Your task to perform on an android device: Open ESPN.com Image 0: 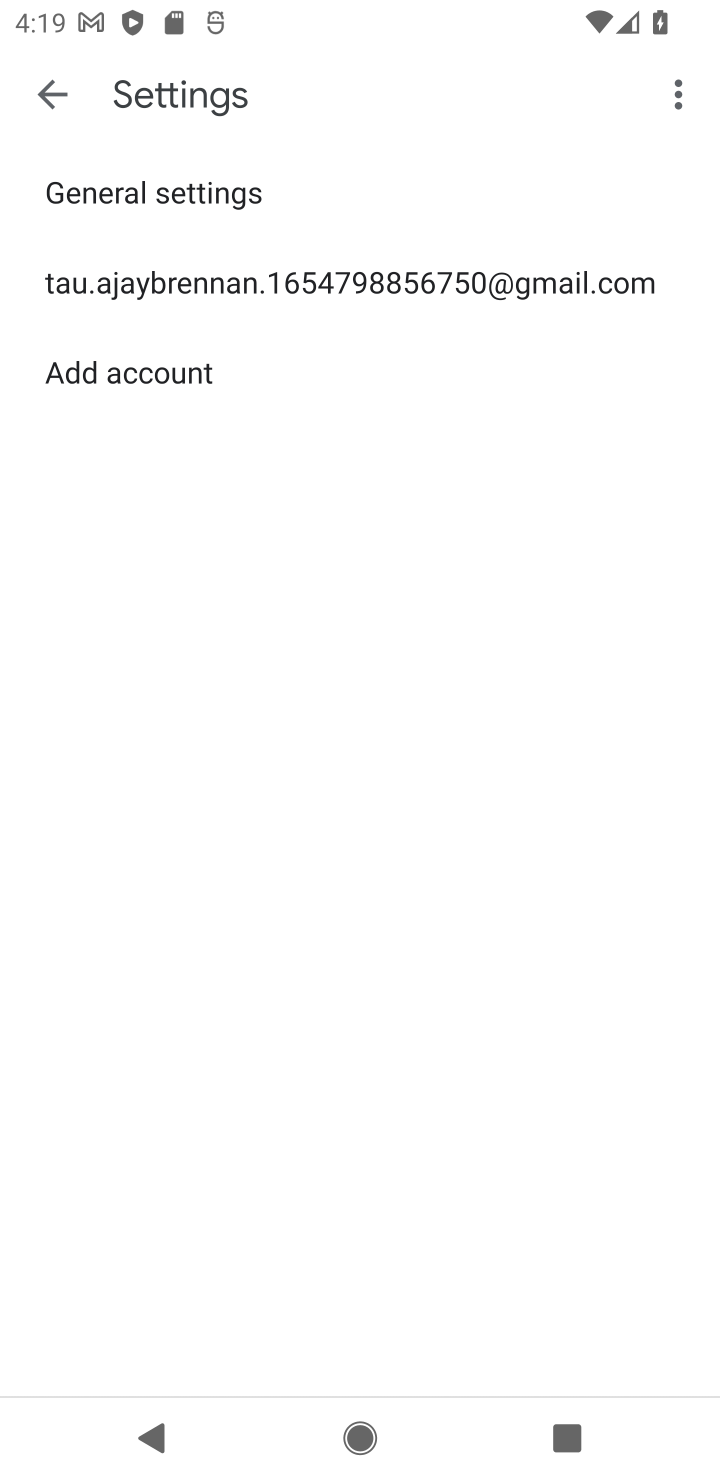
Step 0: press home button
Your task to perform on an android device: Open ESPN.com Image 1: 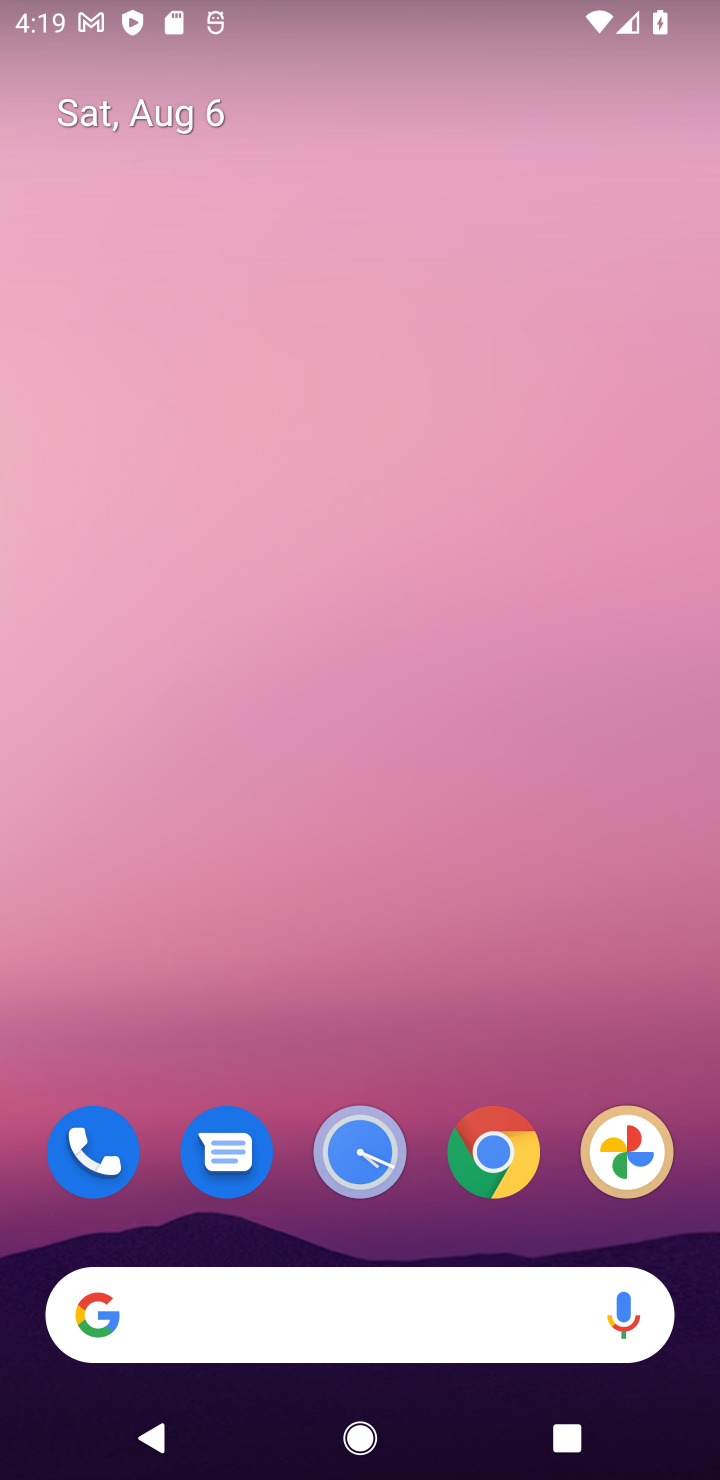
Step 1: drag from (467, 828) to (579, 1)
Your task to perform on an android device: Open ESPN.com Image 2: 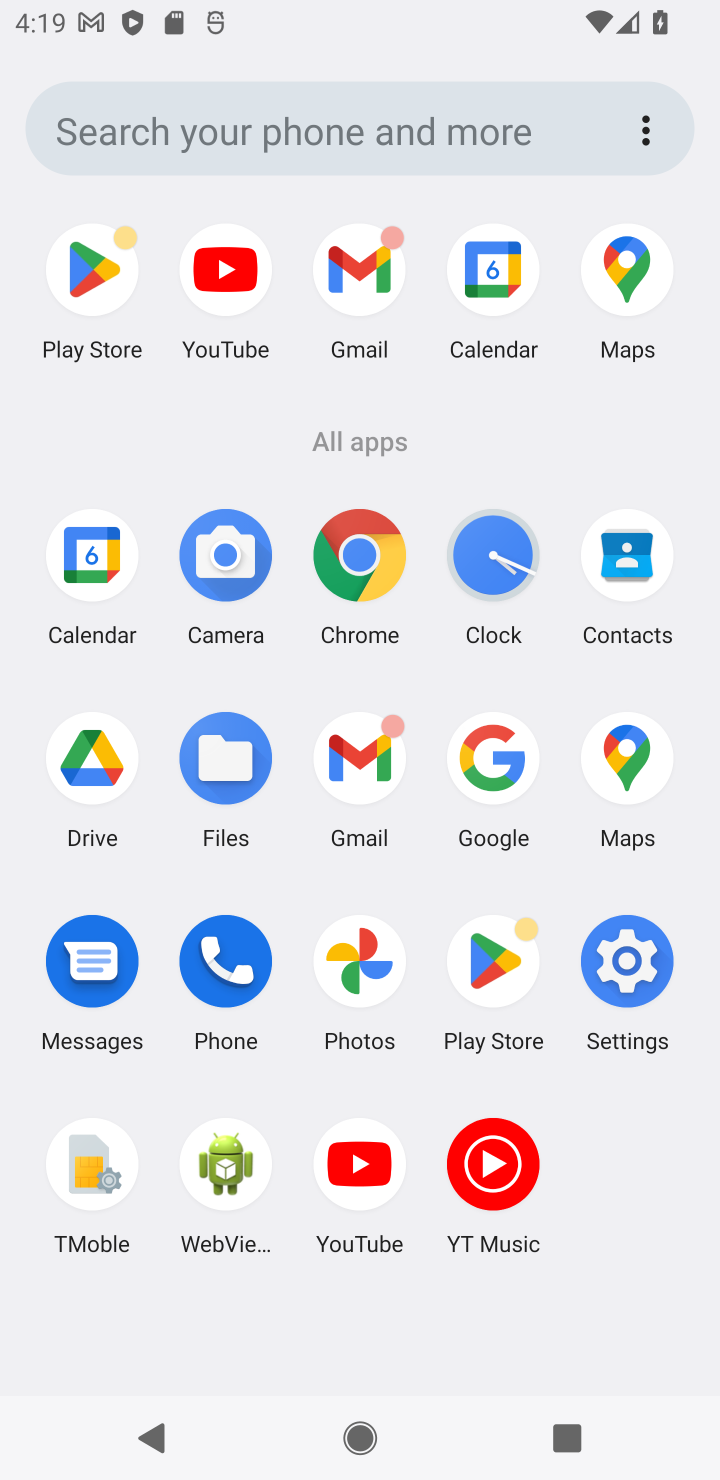
Step 2: click (359, 560)
Your task to perform on an android device: Open ESPN.com Image 3: 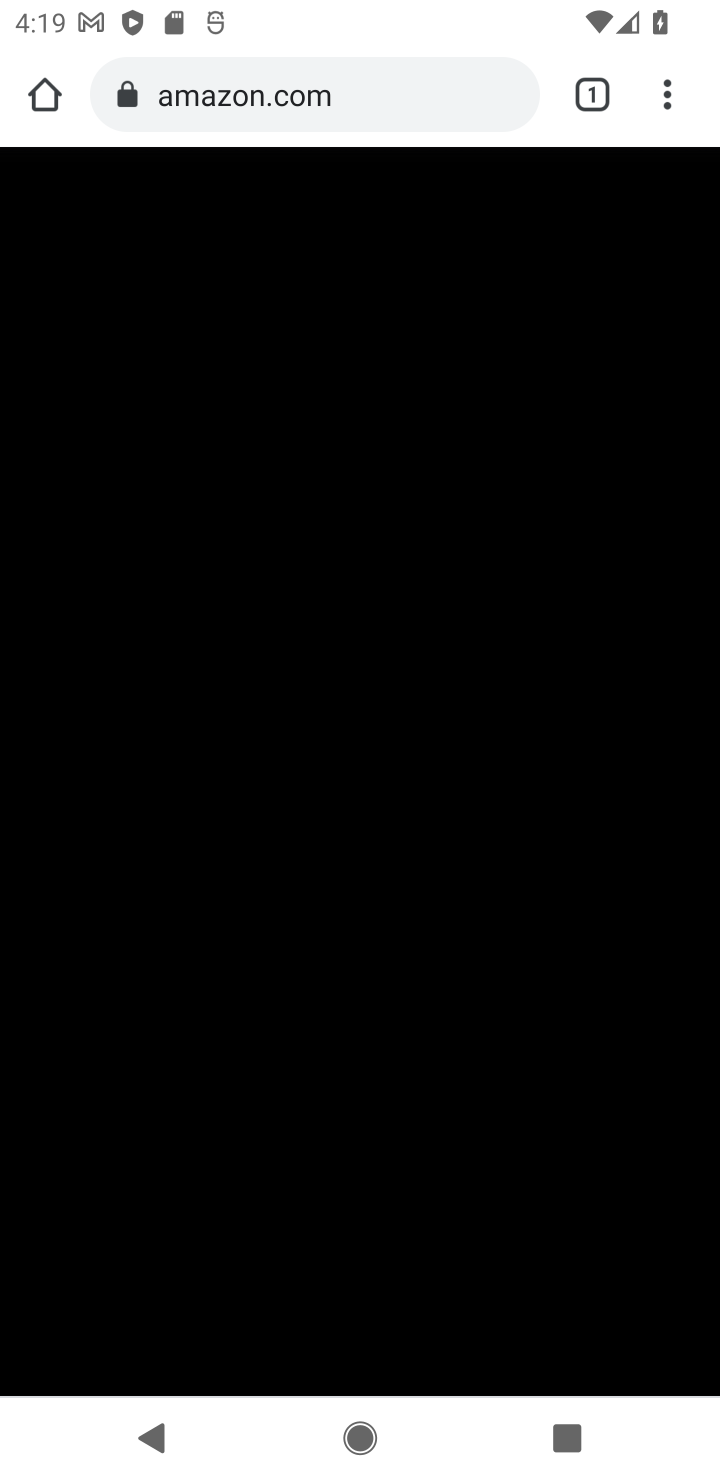
Step 3: click (417, 91)
Your task to perform on an android device: Open ESPN.com Image 4: 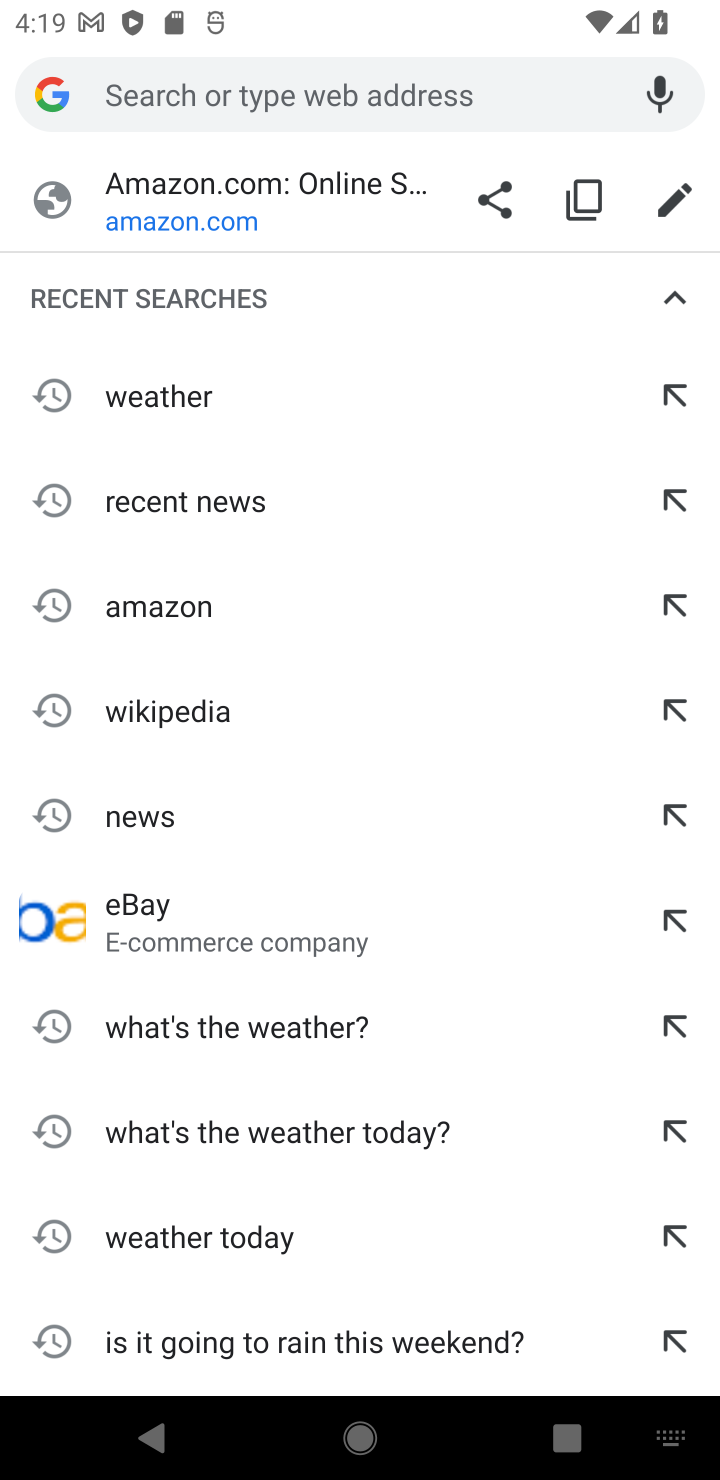
Step 4: type "espn.com"
Your task to perform on an android device: Open ESPN.com Image 5: 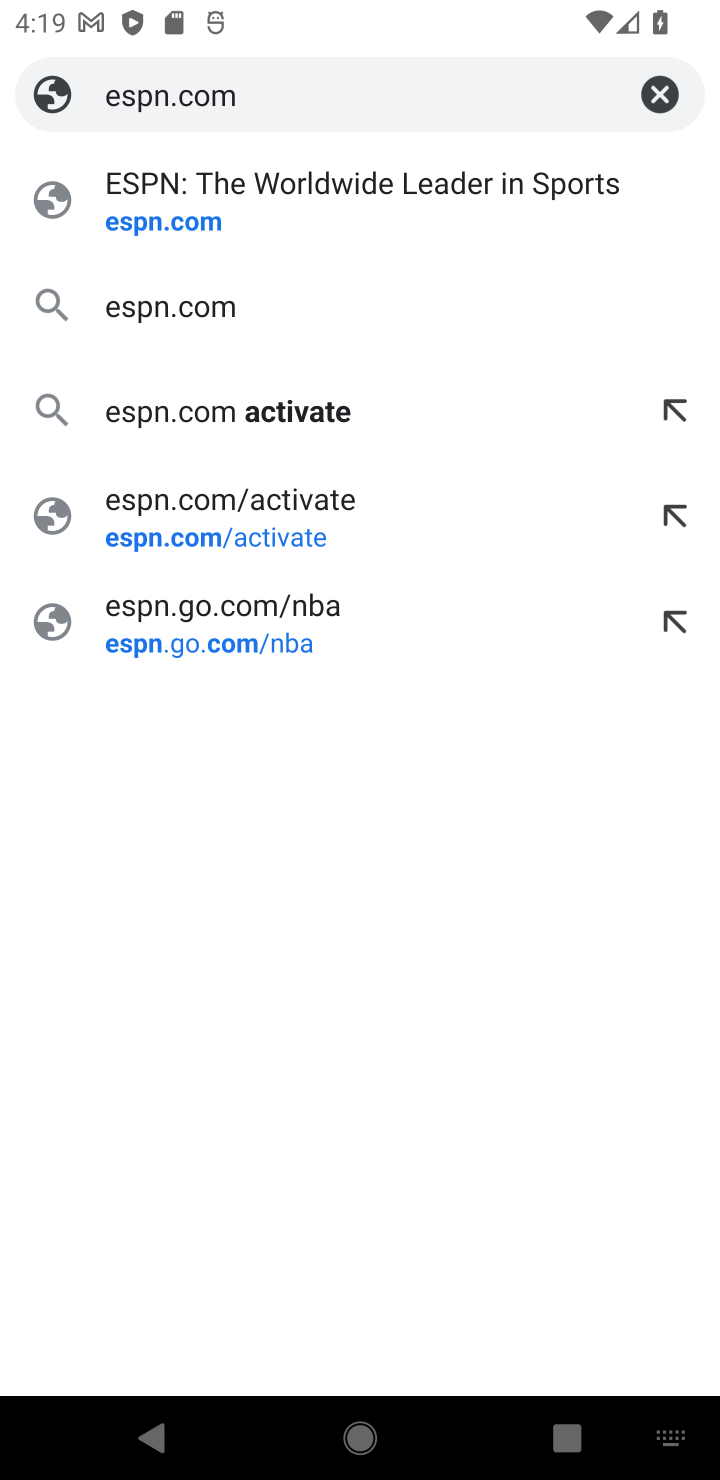
Step 5: click (158, 225)
Your task to perform on an android device: Open ESPN.com Image 6: 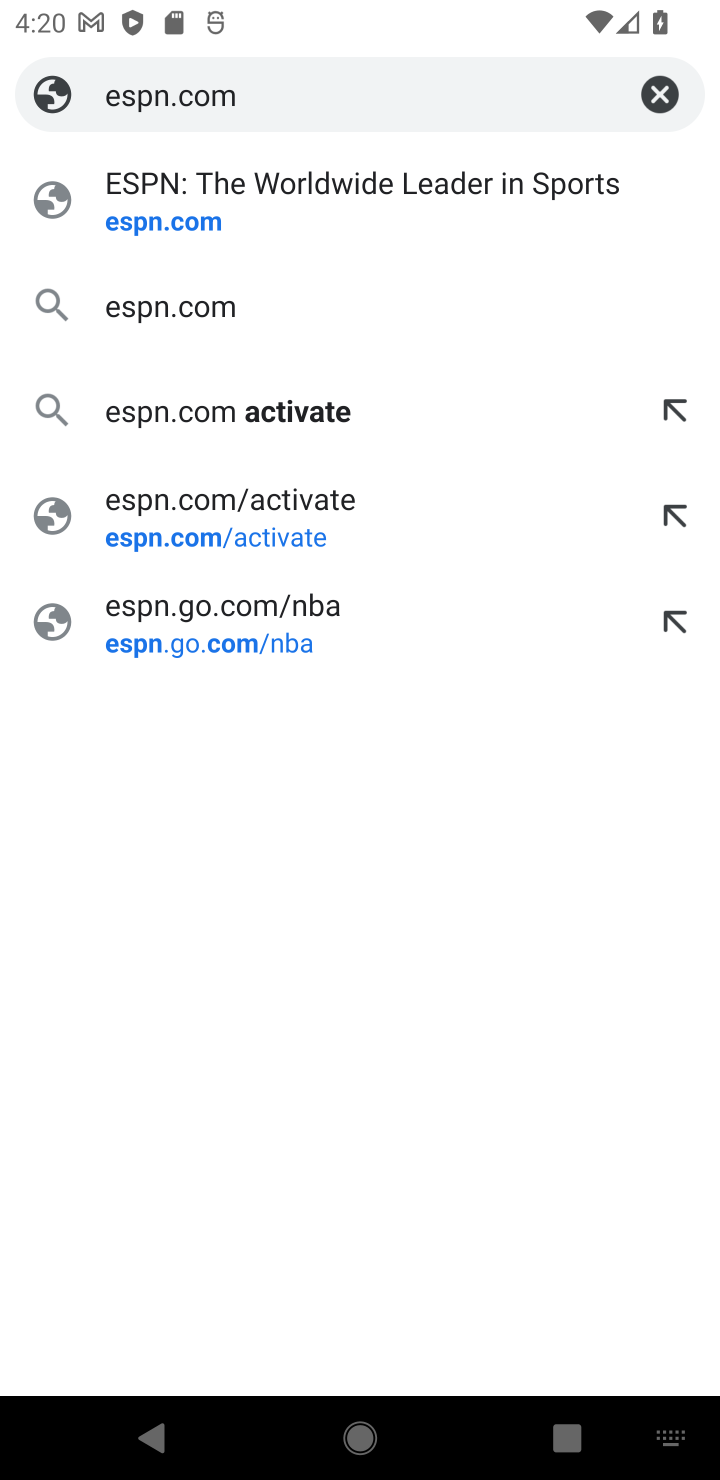
Step 6: click (160, 223)
Your task to perform on an android device: Open ESPN.com Image 7: 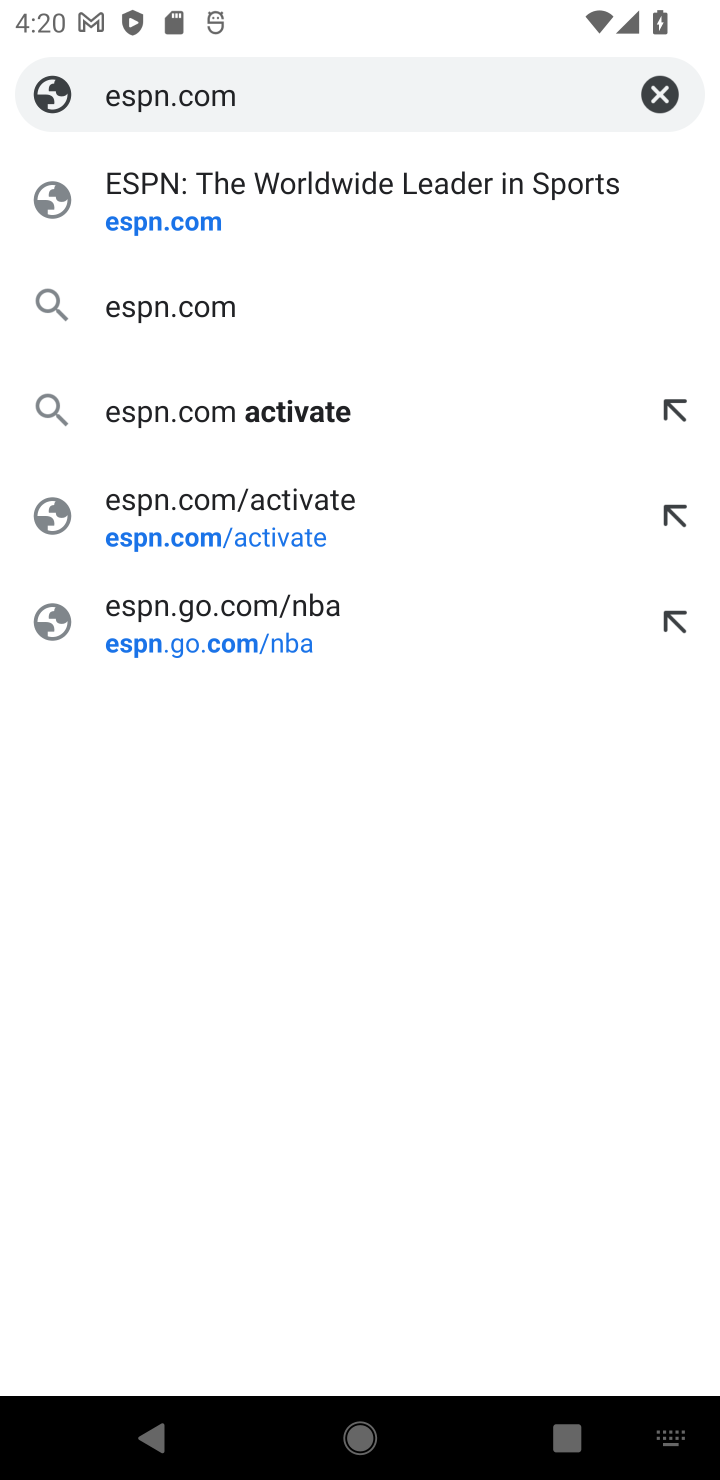
Step 7: click (157, 216)
Your task to perform on an android device: Open ESPN.com Image 8: 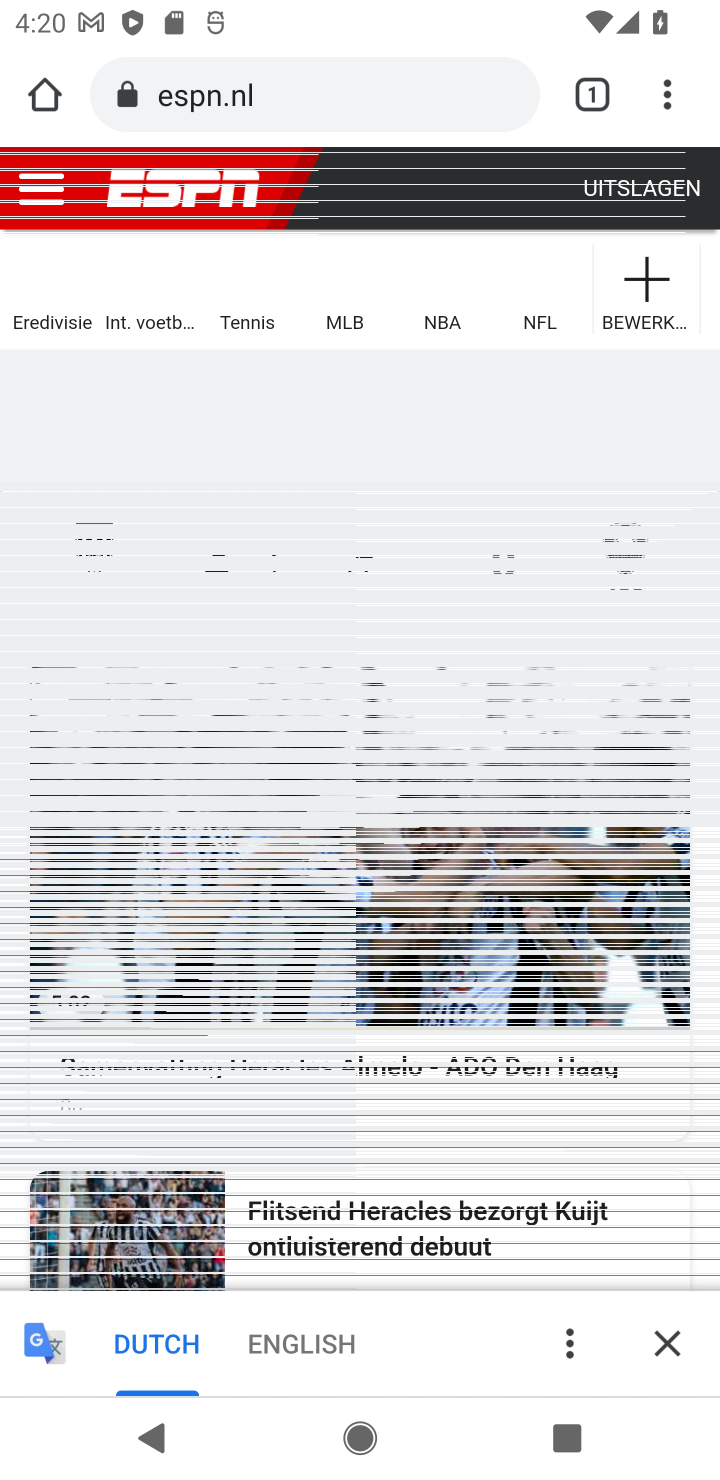
Step 8: task complete